Your task to perform on an android device: turn off javascript in the chrome app Image 0: 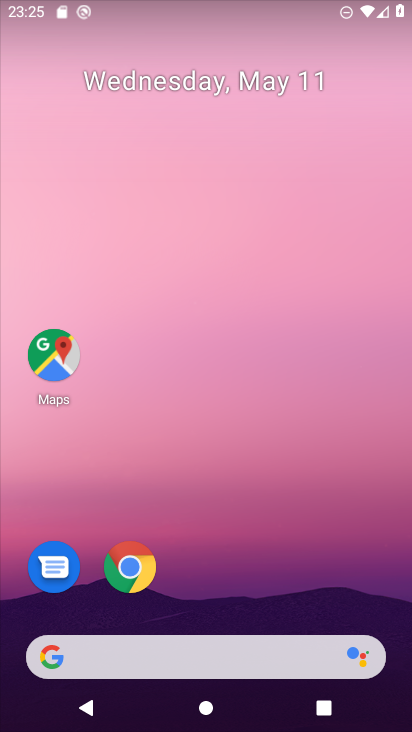
Step 0: click (127, 557)
Your task to perform on an android device: turn off javascript in the chrome app Image 1: 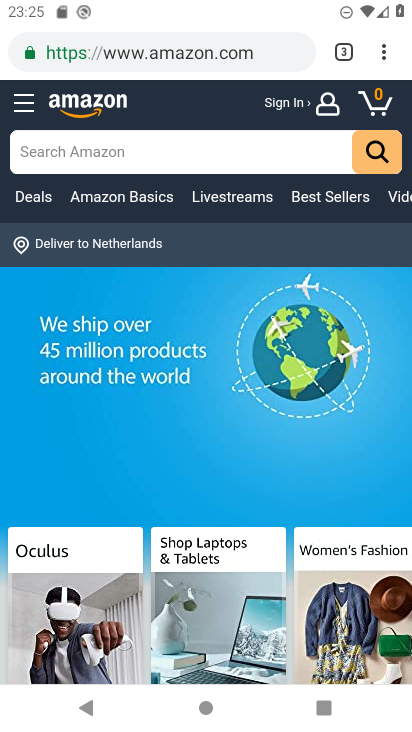
Step 1: click (380, 44)
Your task to perform on an android device: turn off javascript in the chrome app Image 2: 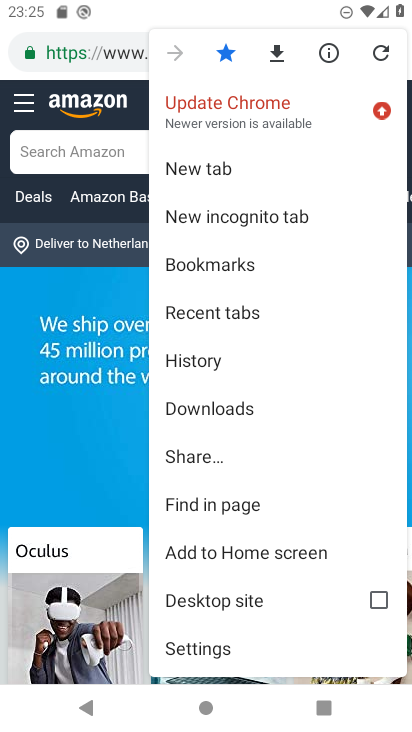
Step 2: click (220, 644)
Your task to perform on an android device: turn off javascript in the chrome app Image 3: 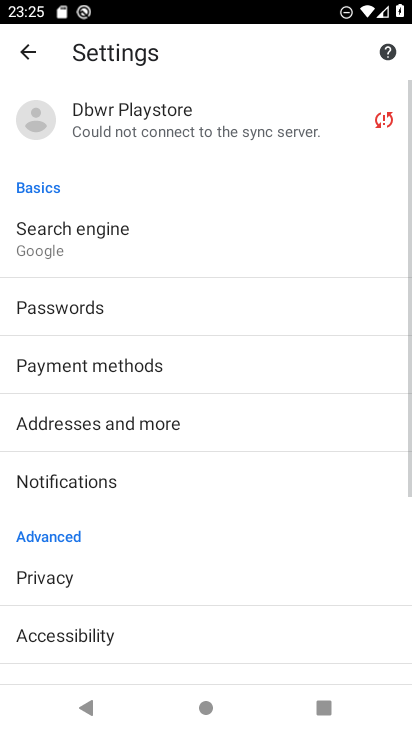
Step 3: drag from (189, 587) to (137, 21)
Your task to perform on an android device: turn off javascript in the chrome app Image 4: 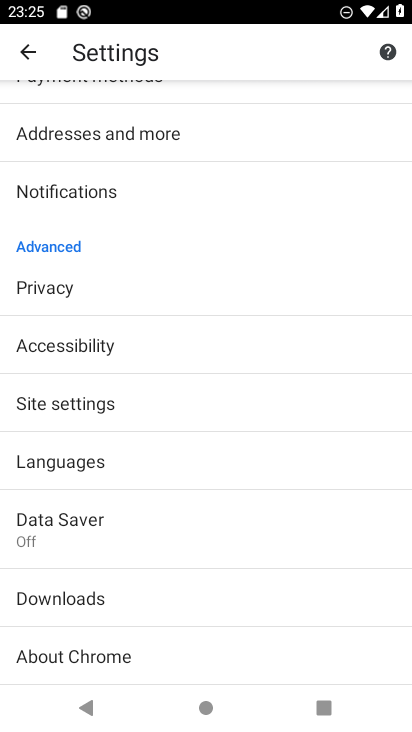
Step 4: click (133, 397)
Your task to perform on an android device: turn off javascript in the chrome app Image 5: 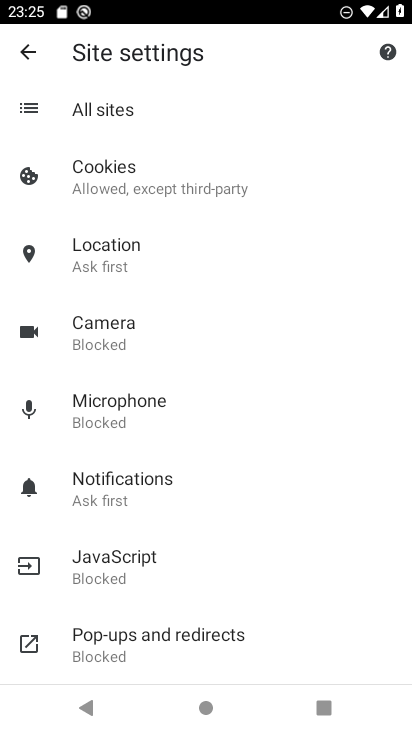
Step 5: click (134, 565)
Your task to perform on an android device: turn off javascript in the chrome app Image 6: 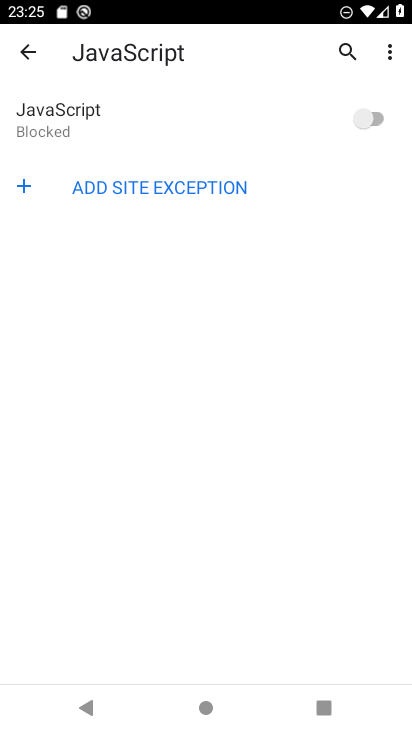
Step 6: task complete